Your task to perform on an android device: turn off location history Image 0: 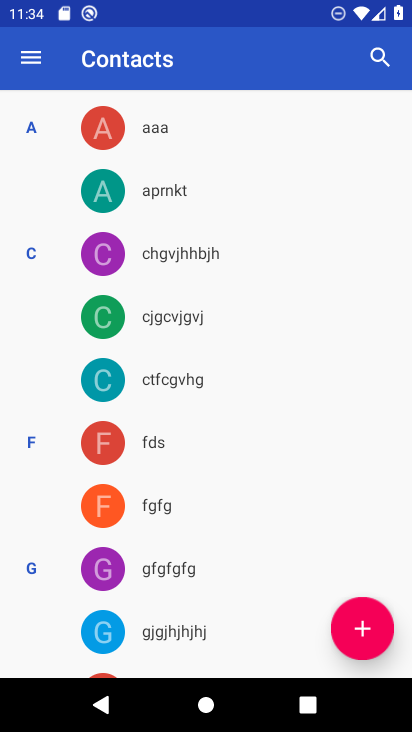
Step 0: press home button
Your task to perform on an android device: turn off location history Image 1: 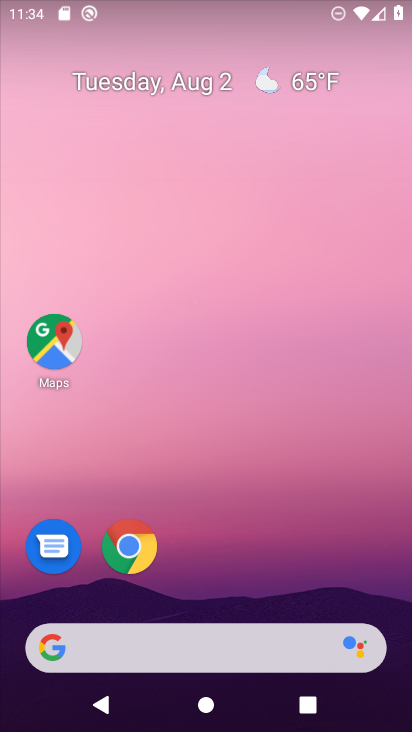
Step 1: drag from (154, 567) to (203, 144)
Your task to perform on an android device: turn off location history Image 2: 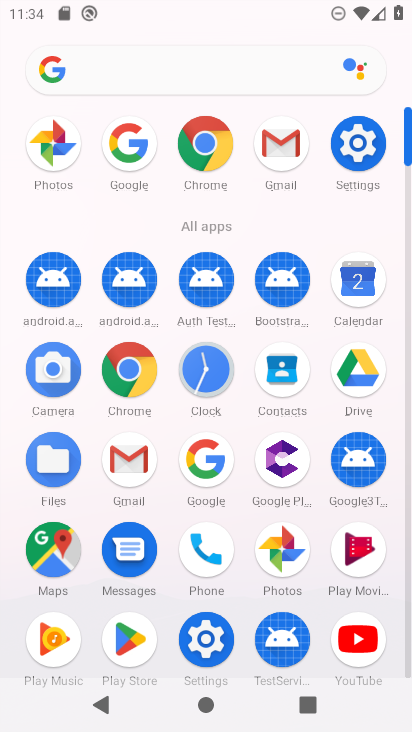
Step 2: click (338, 162)
Your task to perform on an android device: turn off location history Image 3: 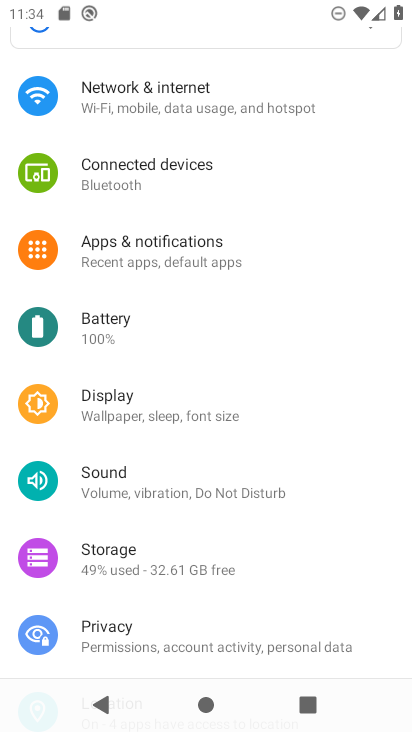
Step 3: drag from (191, 536) to (192, 196)
Your task to perform on an android device: turn off location history Image 4: 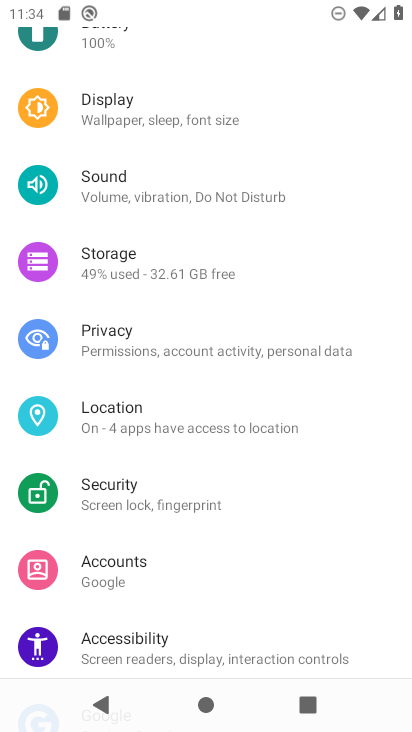
Step 4: click (151, 404)
Your task to perform on an android device: turn off location history Image 5: 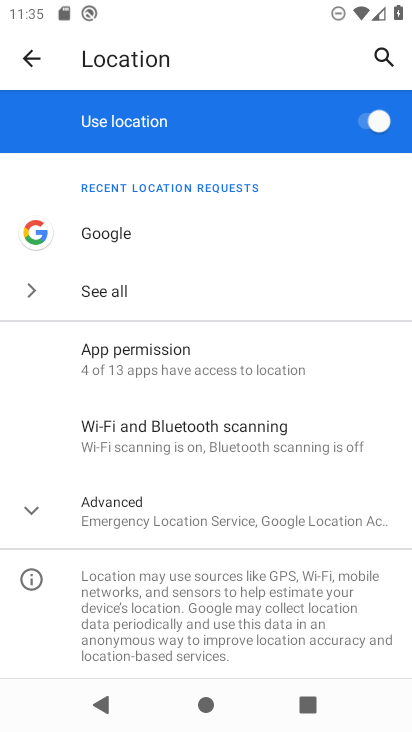
Step 5: click (228, 531)
Your task to perform on an android device: turn off location history Image 6: 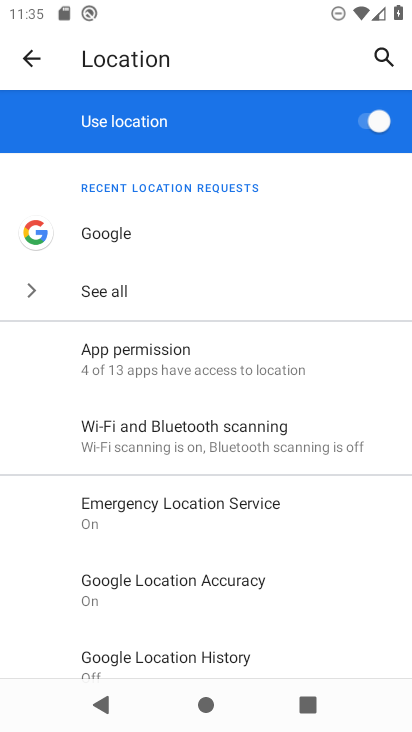
Step 6: drag from (206, 581) to (208, 374)
Your task to perform on an android device: turn off location history Image 7: 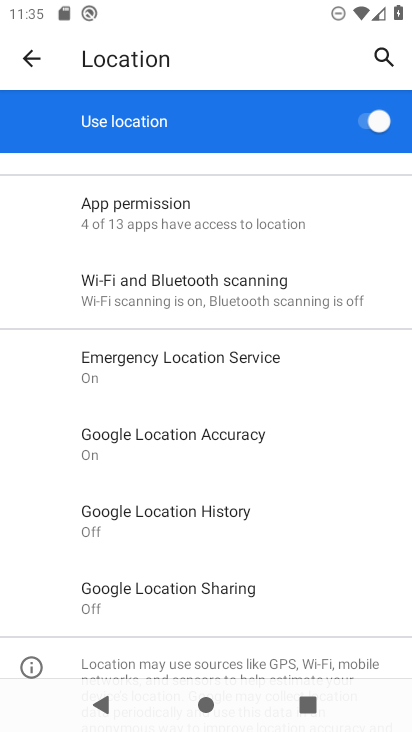
Step 7: click (245, 526)
Your task to perform on an android device: turn off location history Image 8: 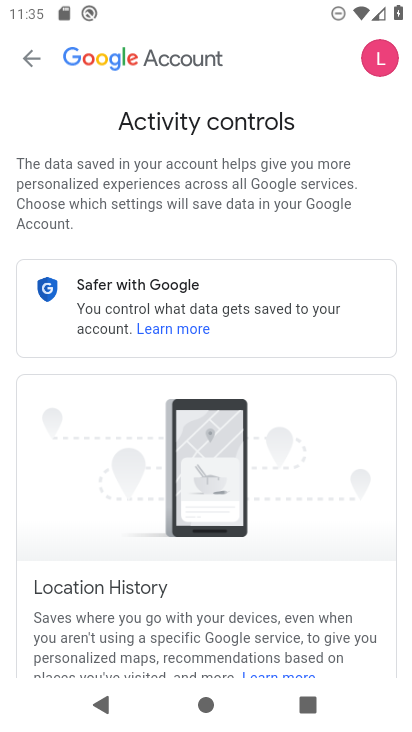
Step 8: task complete